Your task to perform on an android device: star an email in the gmail app Image 0: 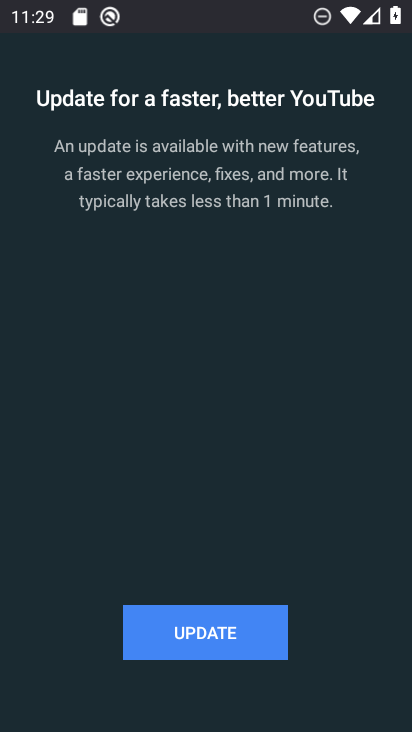
Step 0: press home button
Your task to perform on an android device: star an email in the gmail app Image 1: 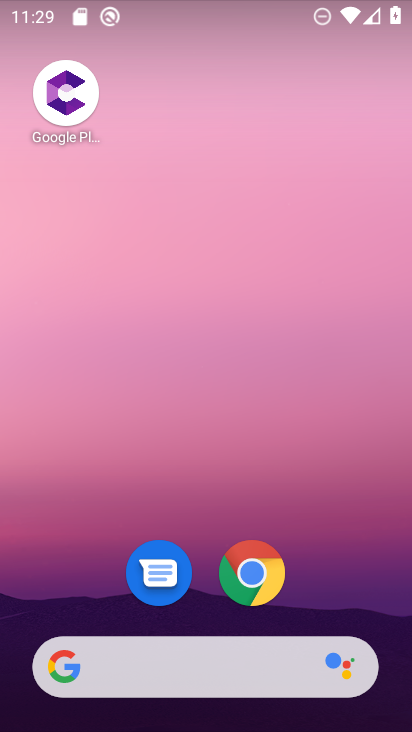
Step 1: drag from (221, 475) to (154, 76)
Your task to perform on an android device: star an email in the gmail app Image 2: 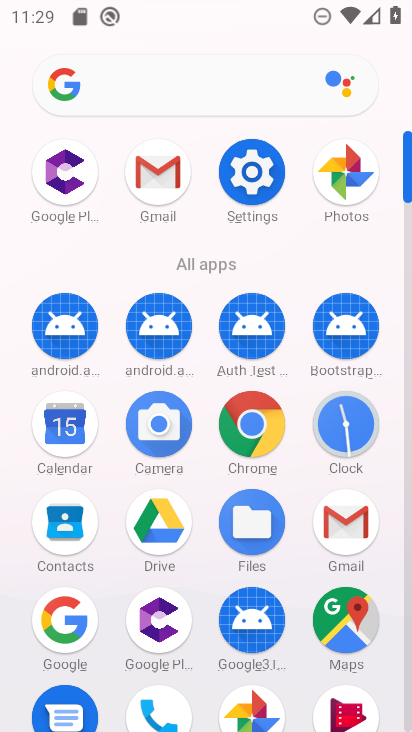
Step 2: click (148, 172)
Your task to perform on an android device: star an email in the gmail app Image 3: 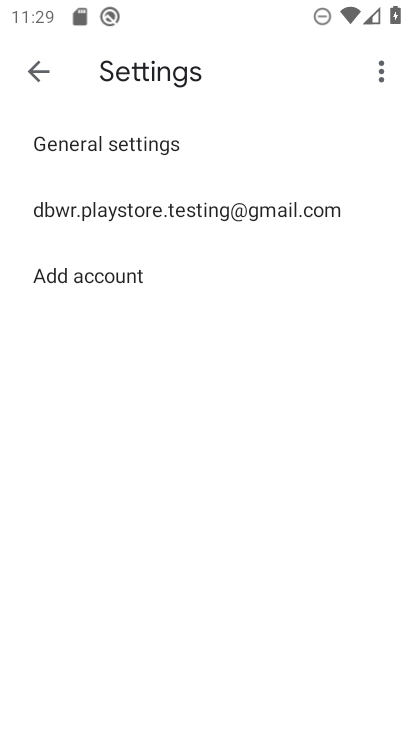
Step 3: click (39, 71)
Your task to perform on an android device: star an email in the gmail app Image 4: 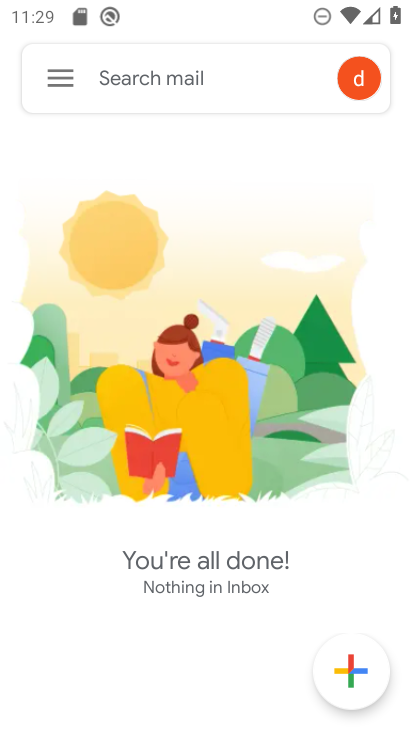
Step 4: click (60, 78)
Your task to perform on an android device: star an email in the gmail app Image 5: 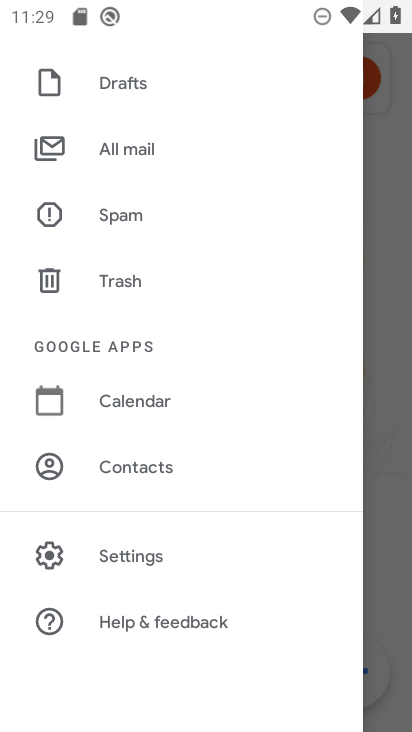
Step 5: click (120, 148)
Your task to perform on an android device: star an email in the gmail app Image 6: 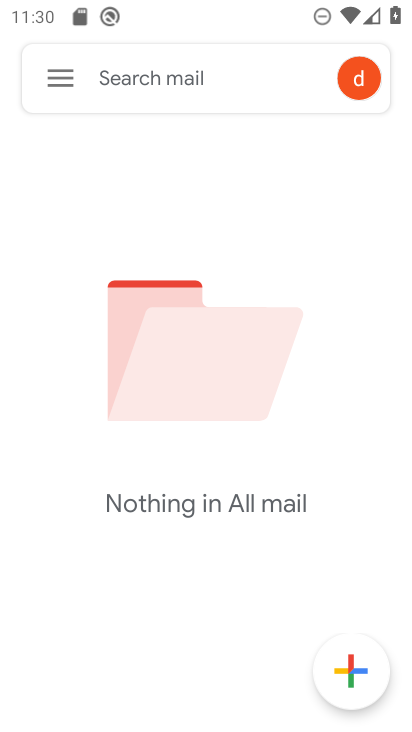
Step 6: task complete